Your task to perform on an android device: Do I have any events this weekend? Image 0: 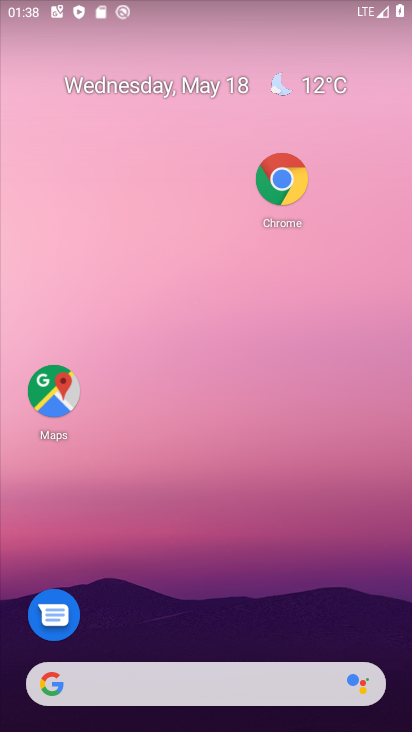
Step 0: press home button
Your task to perform on an android device: Do I have any events this weekend? Image 1: 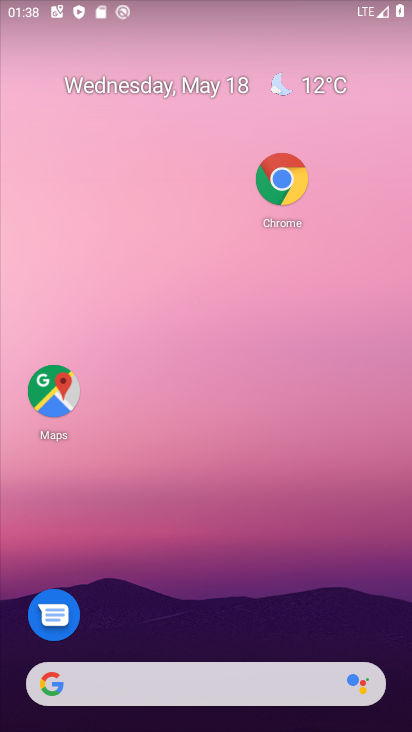
Step 1: drag from (138, 686) to (296, 126)
Your task to perform on an android device: Do I have any events this weekend? Image 2: 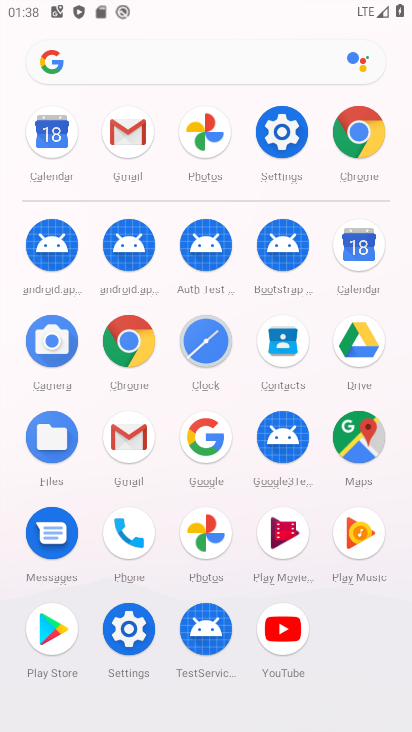
Step 2: click (354, 257)
Your task to perform on an android device: Do I have any events this weekend? Image 3: 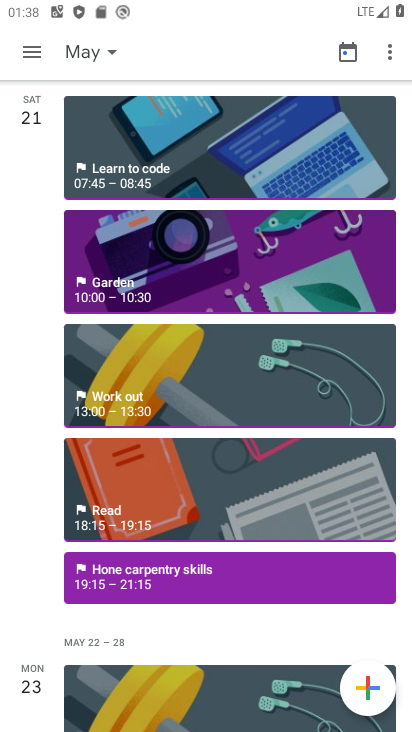
Step 3: task complete